Your task to perform on an android device: star an email in the gmail app Image 0: 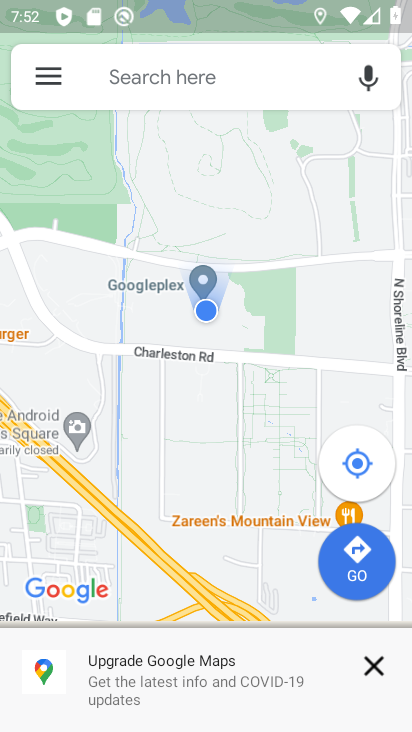
Step 0: press home button
Your task to perform on an android device: star an email in the gmail app Image 1: 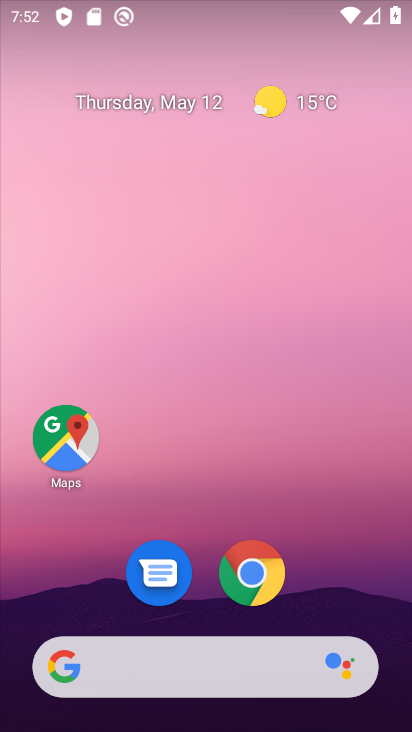
Step 1: drag from (316, 546) to (155, 18)
Your task to perform on an android device: star an email in the gmail app Image 2: 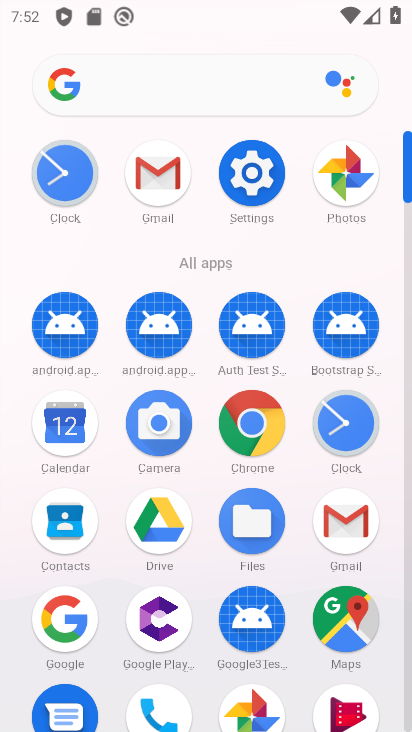
Step 2: click (148, 187)
Your task to perform on an android device: star an email in the gmail app Image 3: 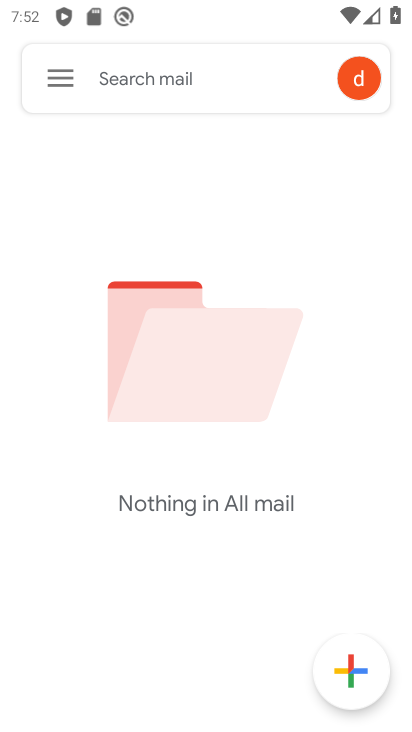
Step 3: click (53, 74)
Your task to perform on an android device: star an email in the gmail app Image 4: 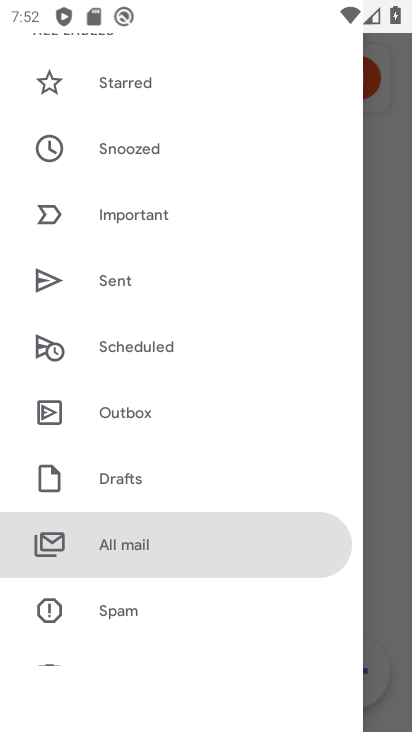
Step 4: click (143, 533)
Your task to perform on an android device: star an email in the gmail app Image 5: 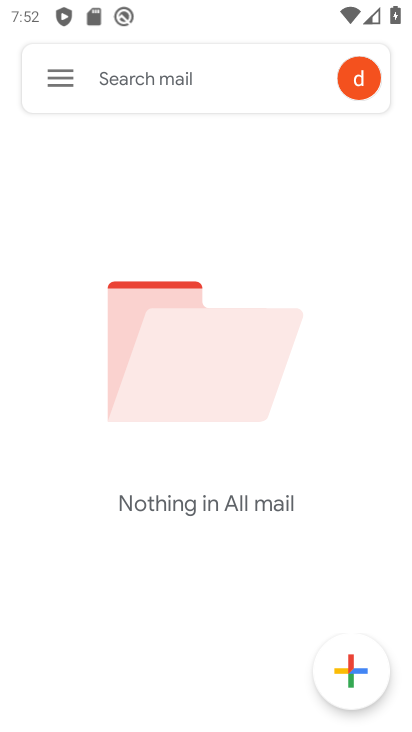
Step 5: task complete